Your task to perform on an android device: set an alarm Image 0: 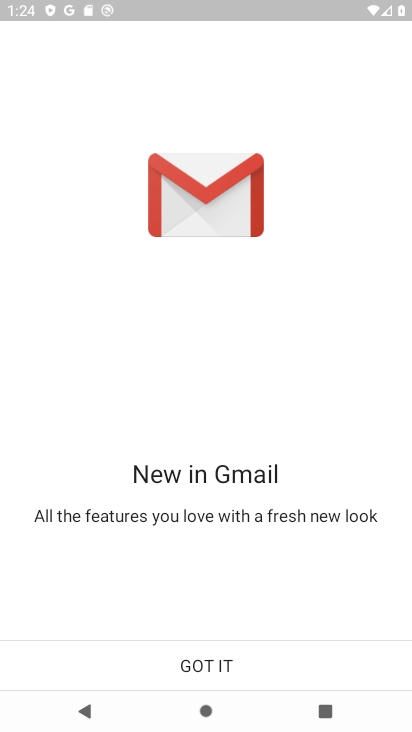
Step 0: press home button
Your task to perform on an android device: set an alarm Image 1: 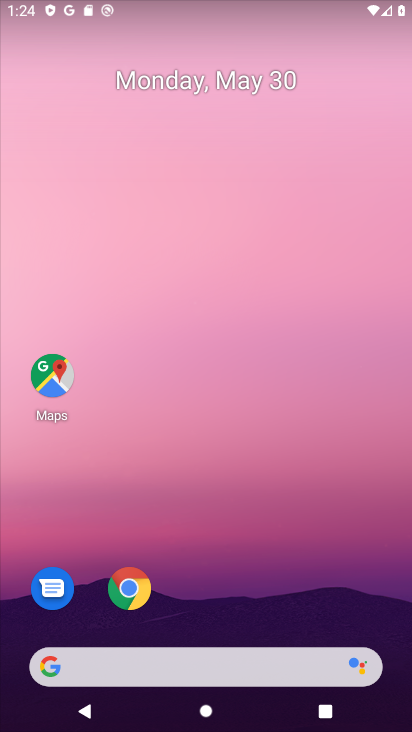
Step 1: drag from (260, 563) to (264, 58)
Your task to perform on an android device: set an alarm Image 2: 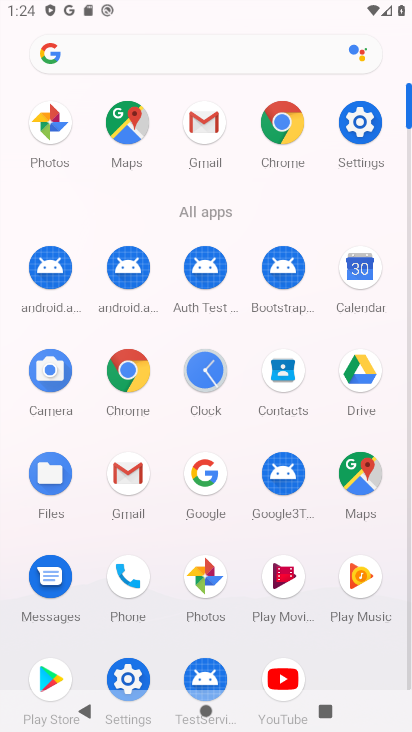
Step 2: click (207, 370)
Your task to perform on an android device: set an alarm Image 3: 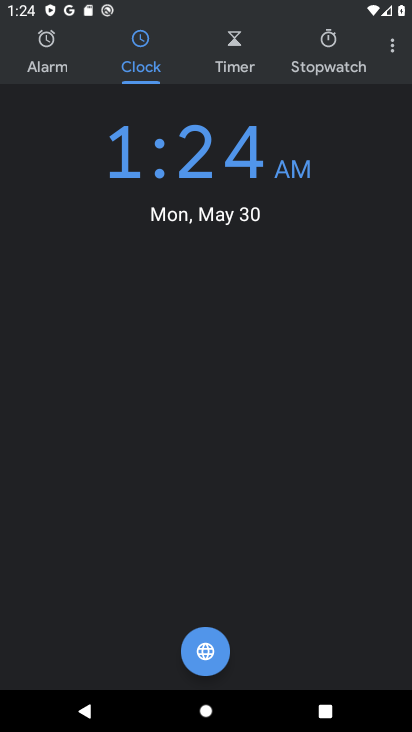
Step 3: click (47, 43)
Your task to perform on an android device: set an alarm Image 4: 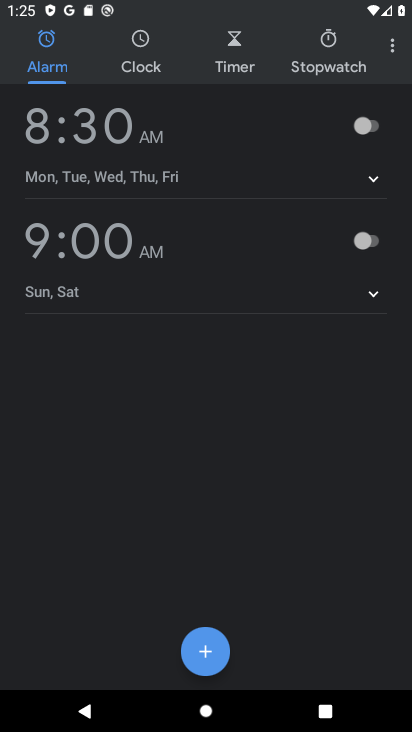
Step 4: click (205, 648)
Your task to perform on an android device: set an alarm Image 5: 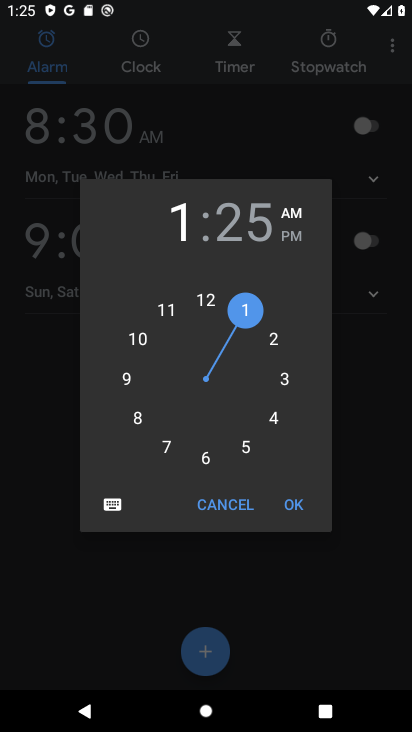
Step 5: click (178, 323)
Your task to perform on an android device: set an alarm Image 6: 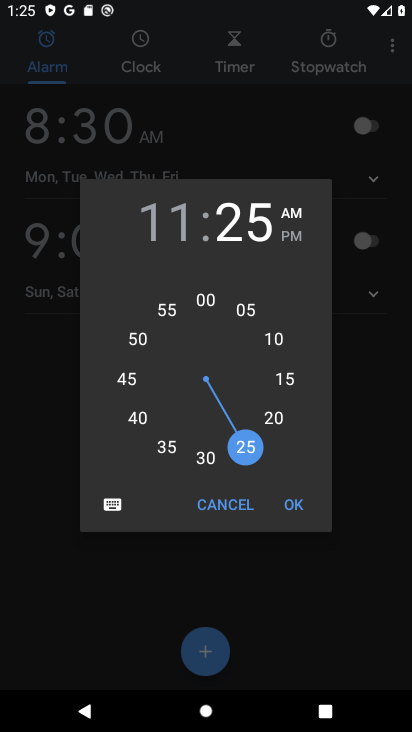
Step 6: click (277, 335)
Your task to perform on an android device: set an alarm Image 7: 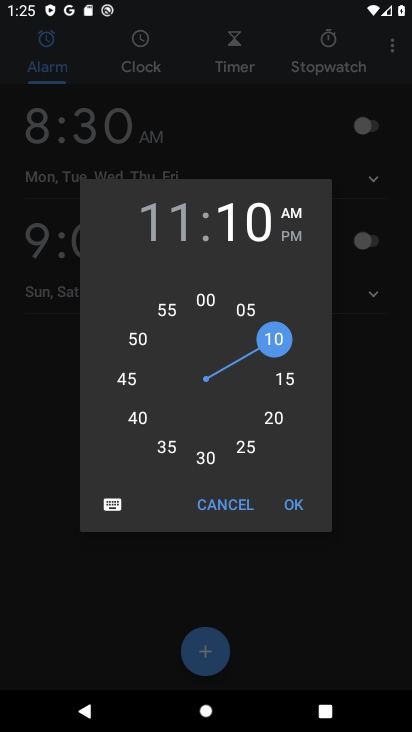
Step 7: click (290, 503)
Your task to perform on an android device: set an alarm Image 8: 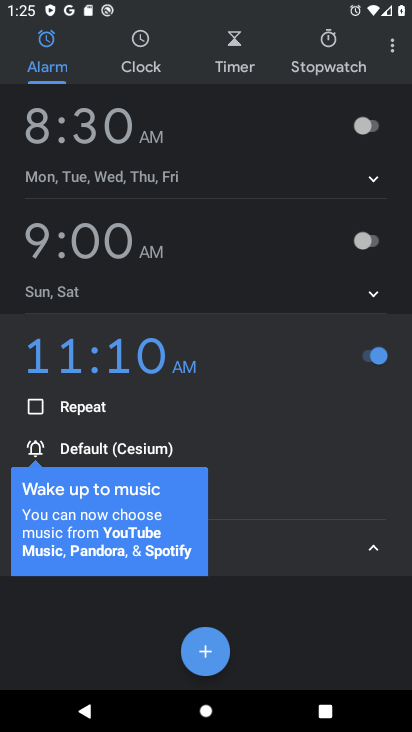
Step 8: click (382, 549)
Your task to perform on an android device: set an alarm Image 9: 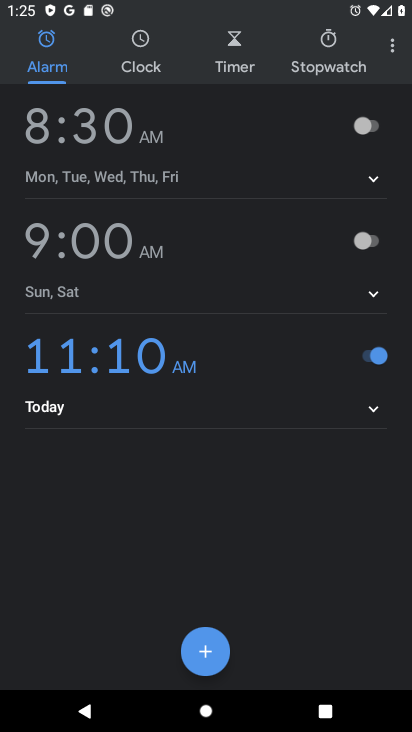
Step 9: task complete